Your task to perform on an android device: Open Google Chrome and click the shortcut for Amazon.com Image 0: 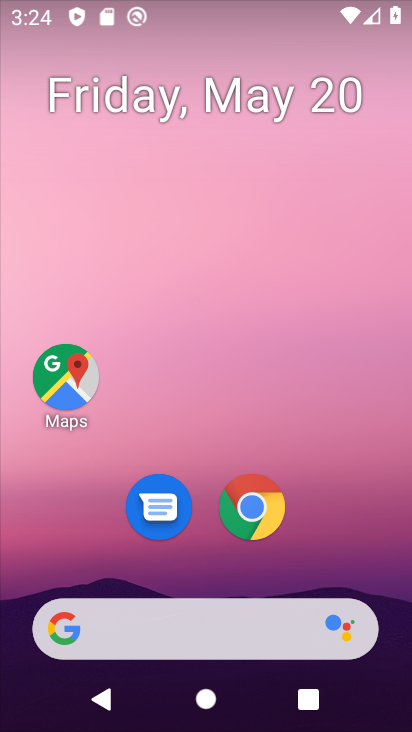
Step 0: click (250, 500)
Your task to perform on an android device: Open Google Chrome and click the shortcut for Amazon.com Image 1: 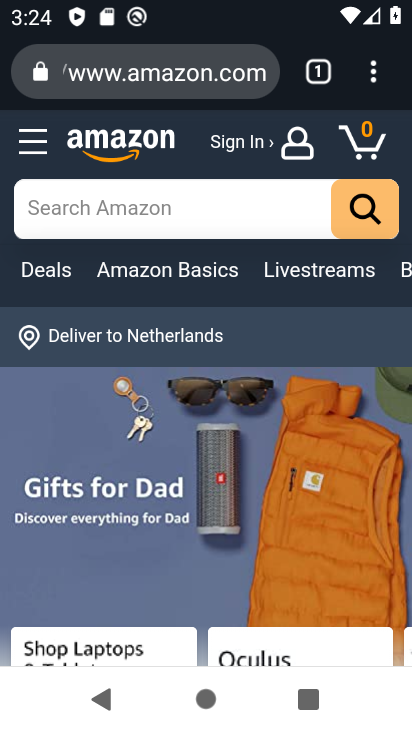
Step 1: click (376, 71)
Your task to perform on an android device: Open Google Chrome and click the shortcut for Amazon.com Image 2: 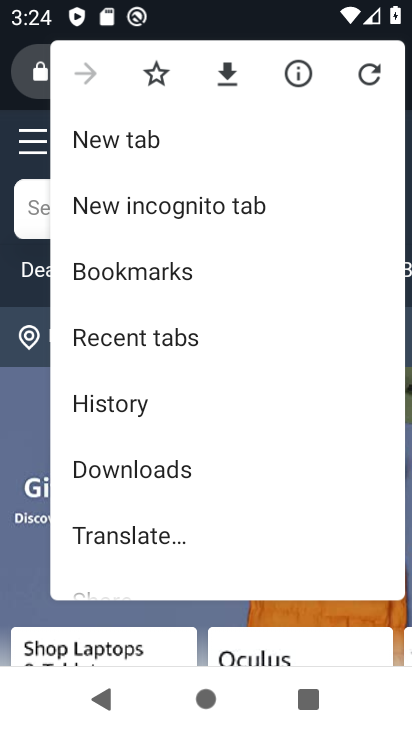
Step 2: drag from (157, 505) to (219, 368)
Your task to perform on an android device: Open Google Chrome and click the shortcut for Amazon.com Image 3: 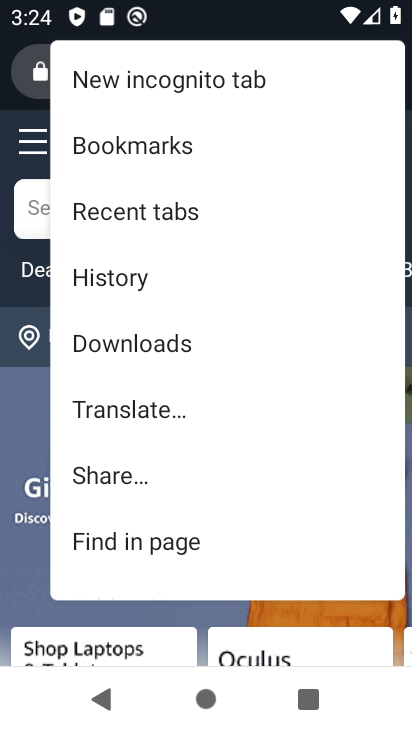
Step 3: drag from (153, 511) to (201, 358)
Your task to perform on an android device: Open Google Chrome and click the shortcut for Amazon.com Image 4: 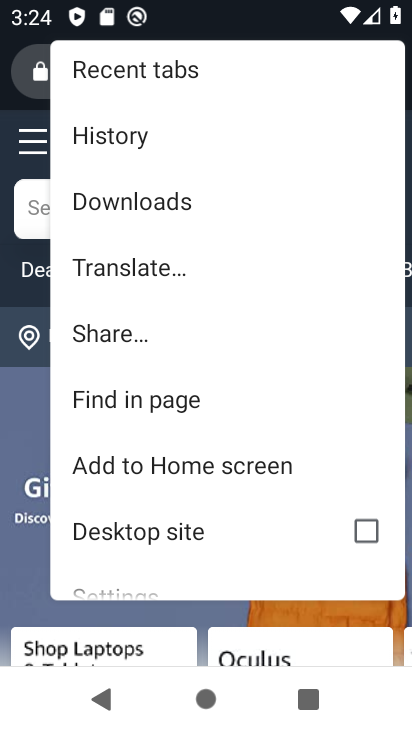
Step 4: click (161, 455)
Your task to perform on an android device: Open Google Chrome and click the shortcut for Amazon.com Image 5: 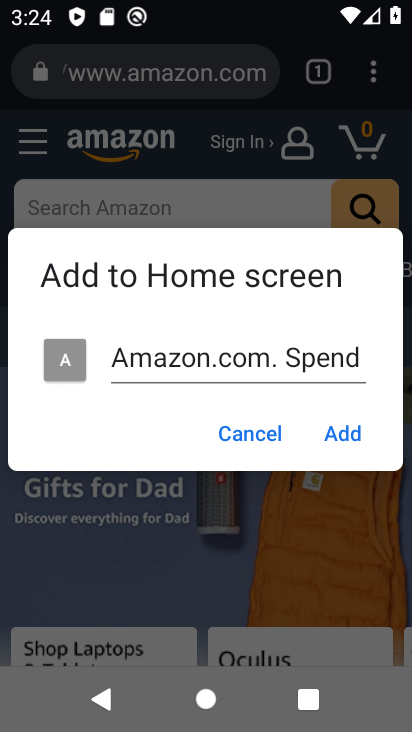
Step 5: click (339, 431)
Your task to perform on an android device: Open Google Chrome and click the shortcut for Amazon.com Image 6: 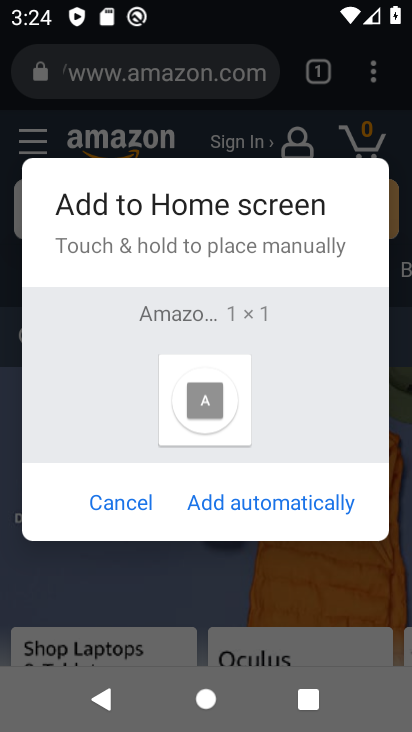
Step 6: click (264, 497)
Your task to perform on an android device: Open Google Chrome and click the shortcut for Amazon.com Image 7: 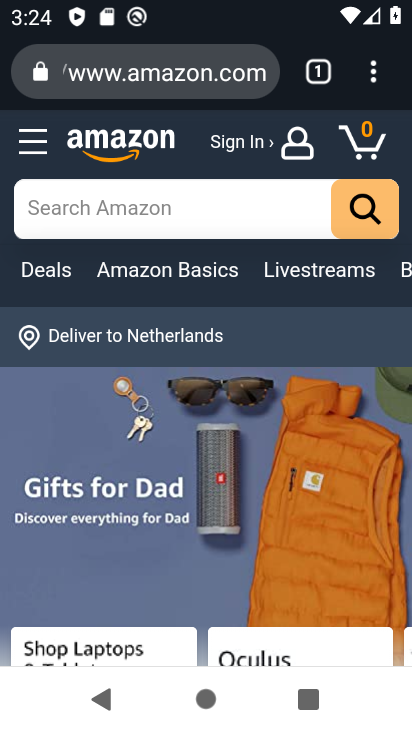
Step 7: task complete